Your task to perform on an android device: add a contact Image 0: 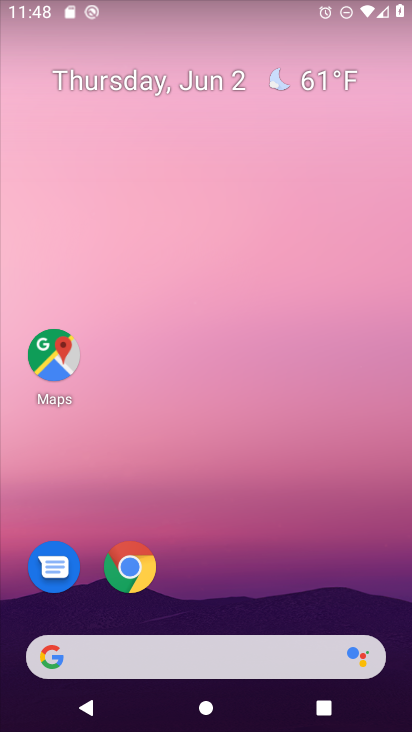
Step 0: drag from (276, 551) to (224, 123)
Your task to perform on an android device: add a contact Image 1: 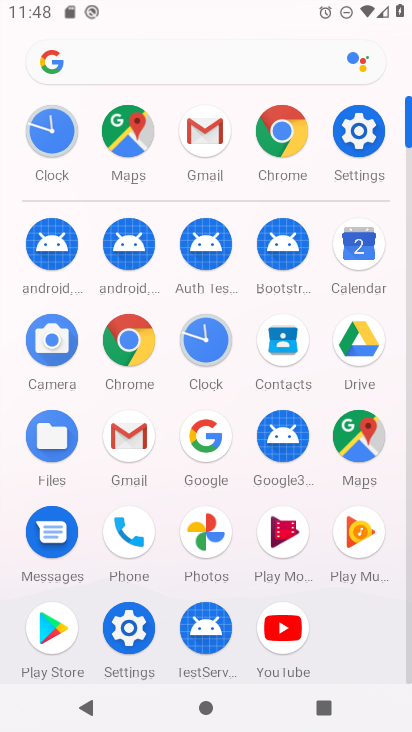
Step 1: click (282, 345)
Your task to perform on an android device: add a contact Image 2: 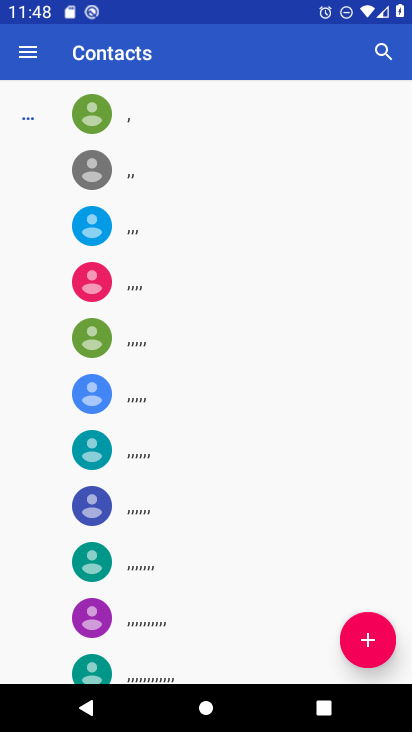
Step 2: click (374, 642)
Your task to perform on an android device: add a contact Image 3: 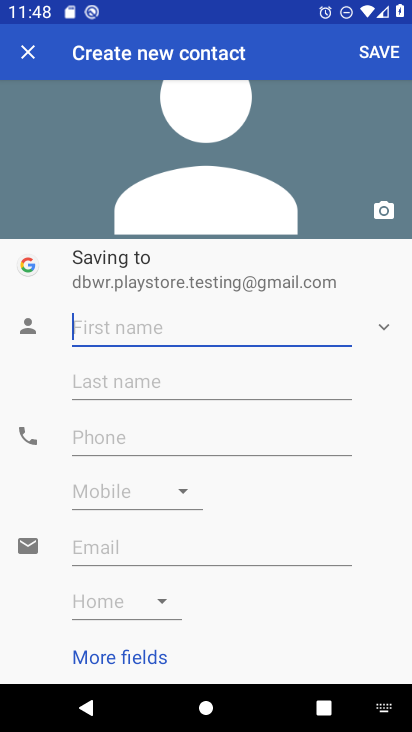
Step 3: type "sanjubaba"
Your task to perform on an android device: add a contact Image 4: 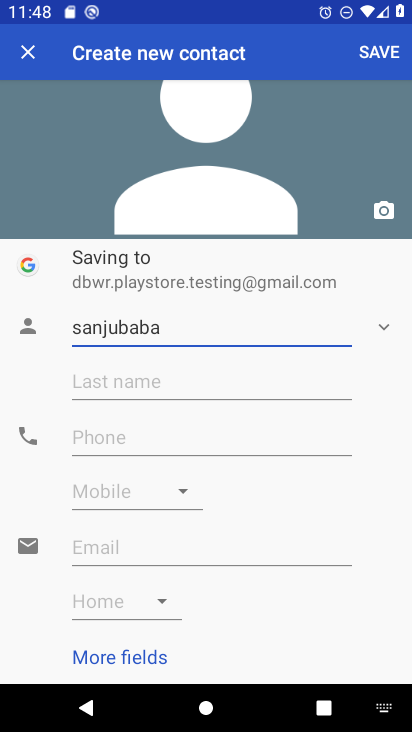
Step 4: click (375, 59)
Your task to perform on an android device: add a contact Image 5: 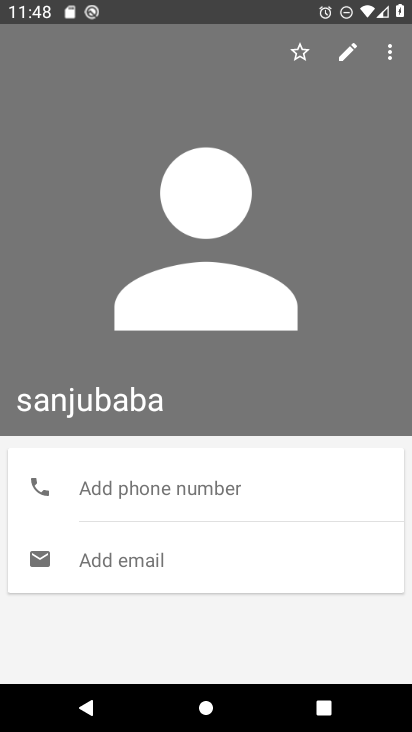
Step 5: task complete